Your task to perform on an android device: What's on my calendar today? Image 0: 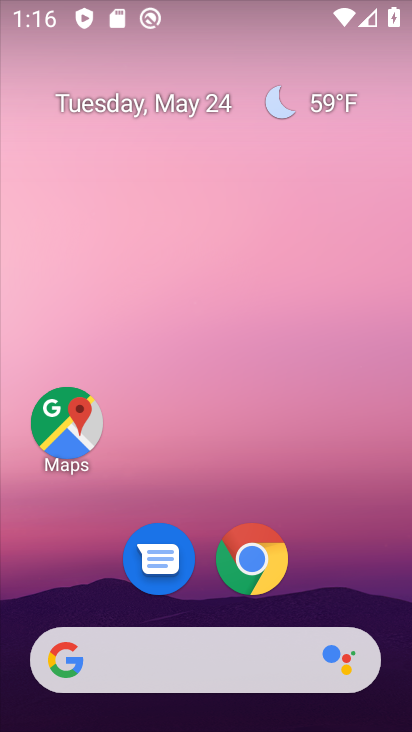
Step 0: drag from (388, 645) to (325, 77)
Your task to perform on an android device: What's on my calendar today? Image 1: 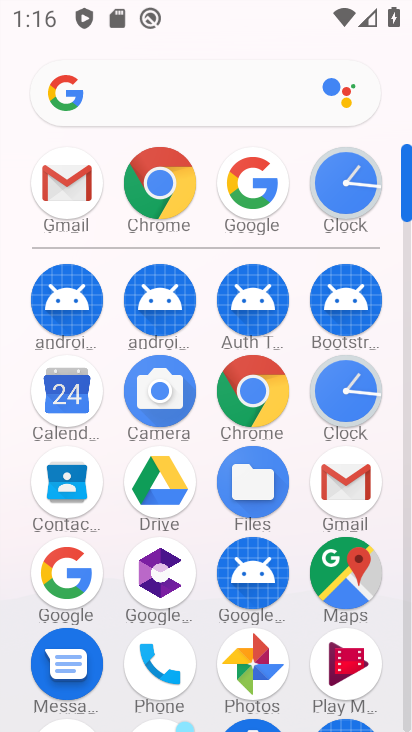
Step 1: click (67, 385)
Your task to perform on an android device: What's on my calendar today? Image 2: 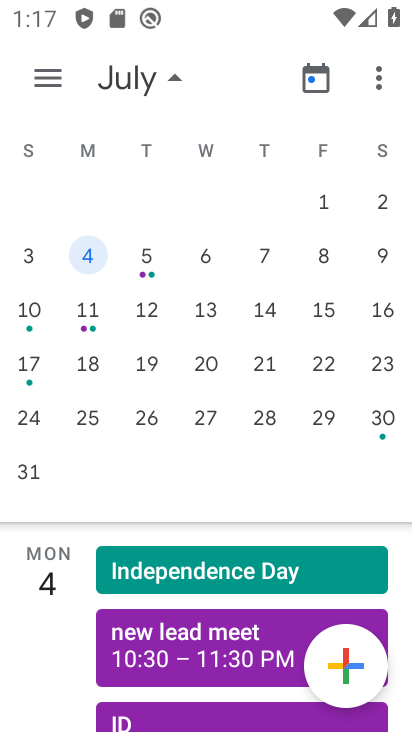
Step 2: drag from (64, 319) to (399, 331)
Your task to perform on an android device: What's on my calendar today? Image 3: 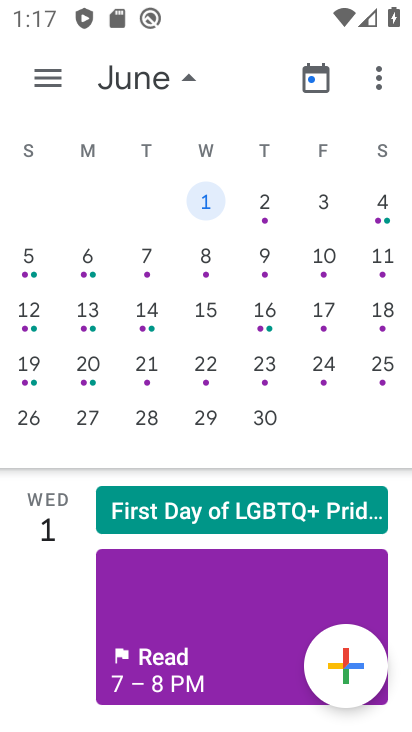
Step 3: drag from (120, 308) to (381, 299)
Your task to perform on an android device: What's on my calendar today? Image 4: 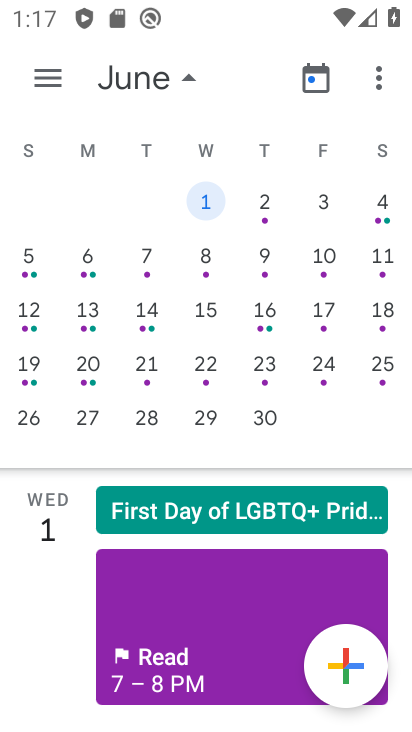
Step 4: drag from (73, 322) to (392, 312)
Your task to perform on an android device: What's on my calendar today? Image 5: 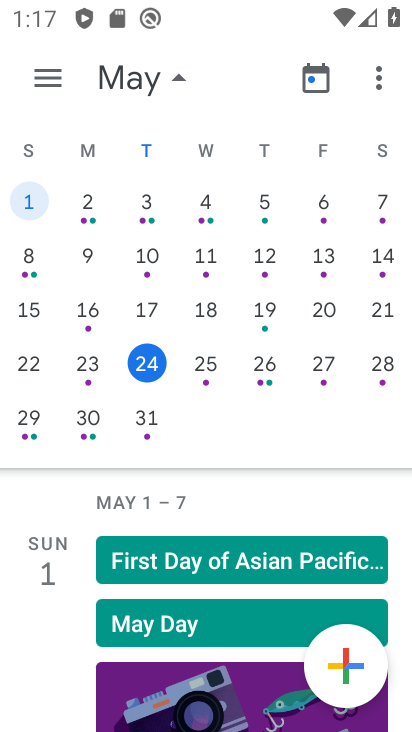
Step 5: click (210, 377)
Your task to perform on an android device: What's on my calendar today? Image 6: 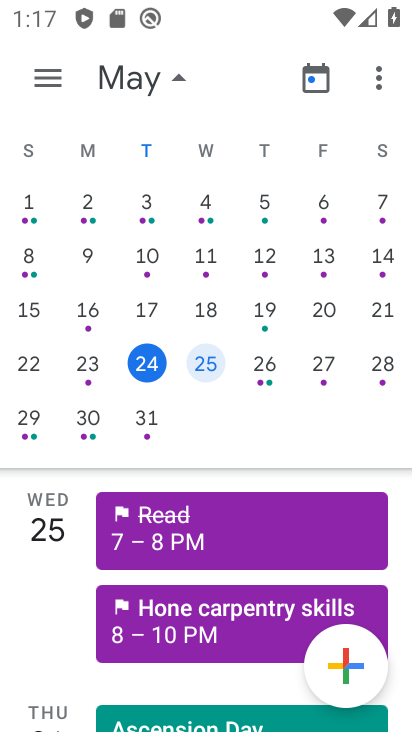
Step 6: click (159, 369)
Your task to perform on an android device: What's on my calendar today? Image 7: 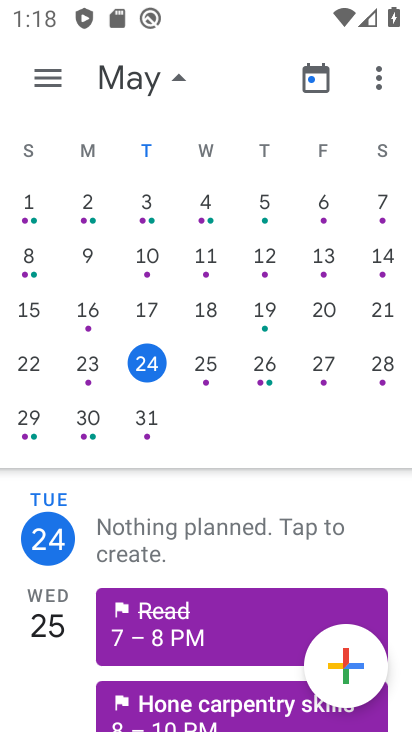
Step 7: task complete